Your task to perform on an android device: Open privacy settings Image 0: 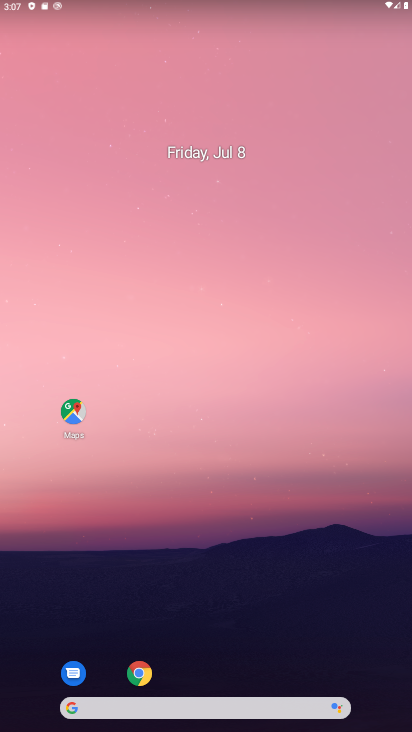
Step 0: drag from (229, 706) to (411, 367)
Your task to perform on an android device: Open privacy settings Image 1: 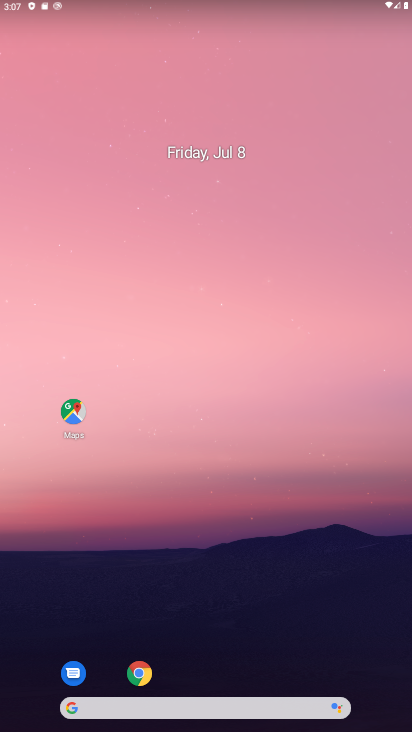
Step 1: drag from (201, 707) to (234, 178)
Your task to perform on an android device: Open privacy settings Image 2: 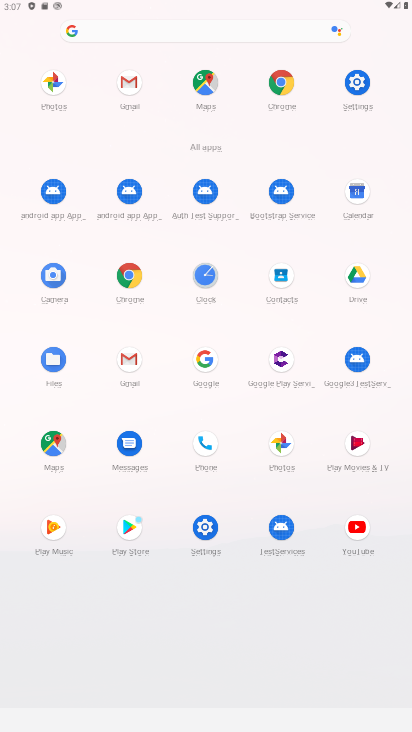
Step 2: click (361, 91)
Your task to perform on an android device: Open privacy settings Image 3: 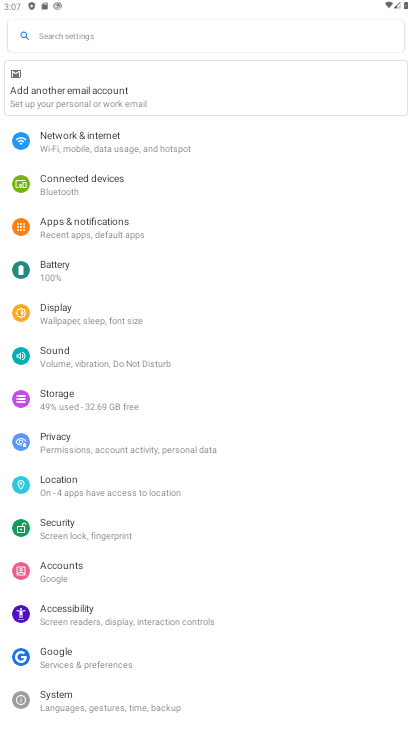
Step 3: click (84, 443)
Your task to perform on an android device: Open privacy settings Image 4: 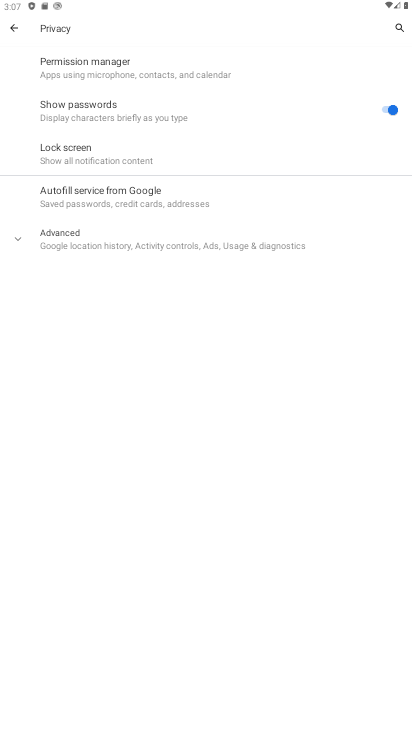
Step 4: task complete